Your task to perform on an android device: Go to calendar. Show me events next week Image 0: 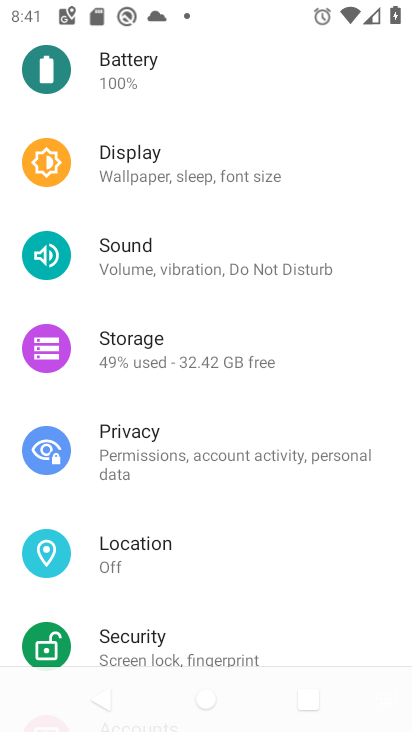
Step 0: press home button
Your task to perform on an android device: Go to calendar. Show me events next week Image 1: 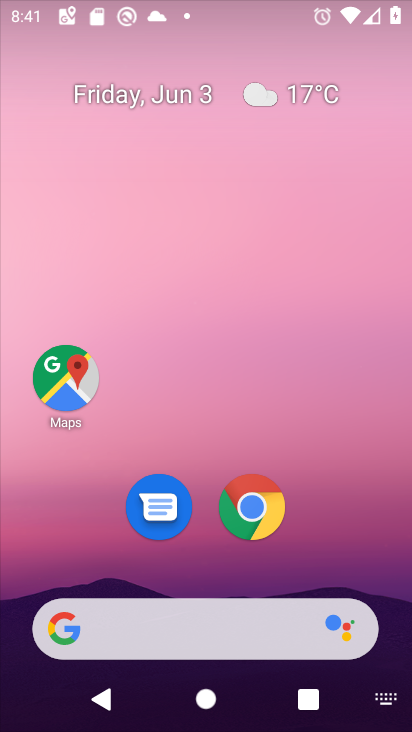
Step 1: click (164, 97)
Your task to perform on an android device: Go to calendar. Show me events next week Image 2: 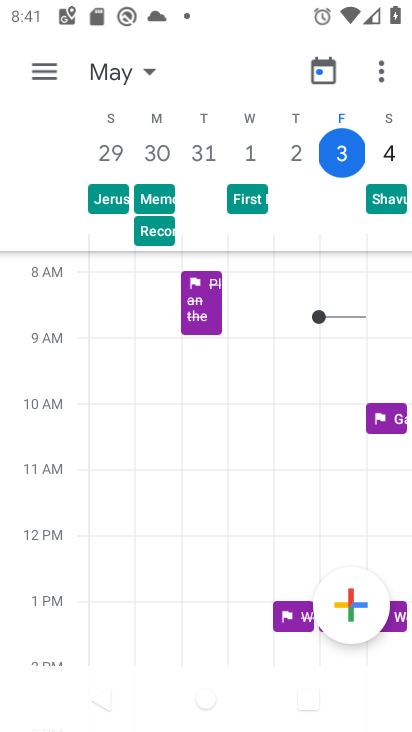
Step 2: task complete